Your task to perform on an android device: Check the weather Image 0: 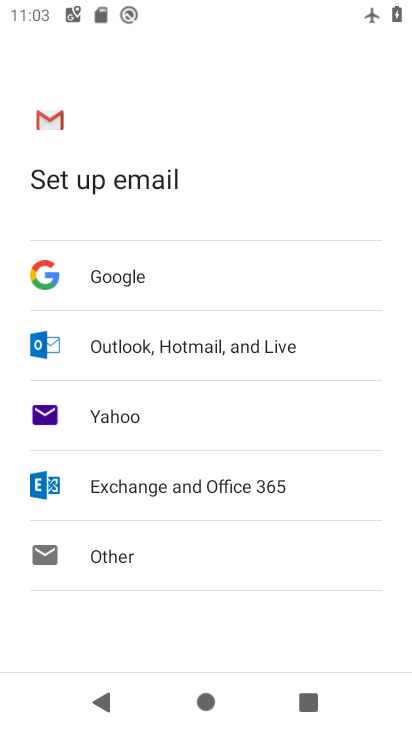
Step 0: press home button
Your task to perform on an android device: Check the weather Image 1: 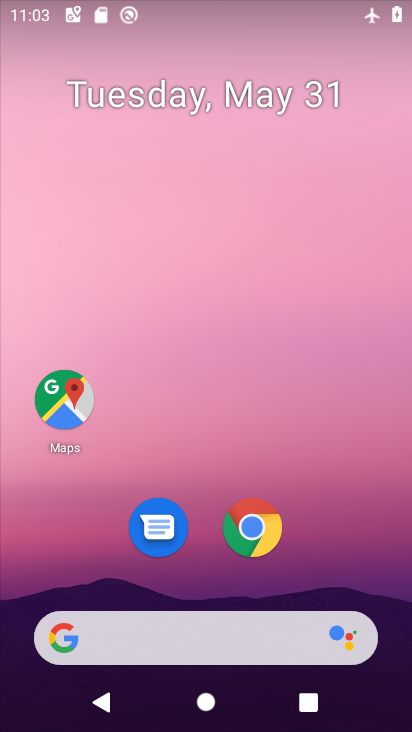
Step 1: click (112, 644)
Your task to perform on an android device: Check the weather Image 2: 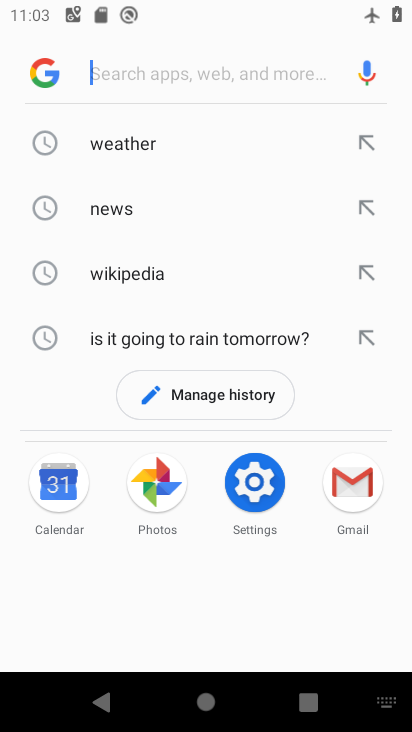
Step 2: click (119, 146)
Your task to perform on an android device: Check the weather Image 3: 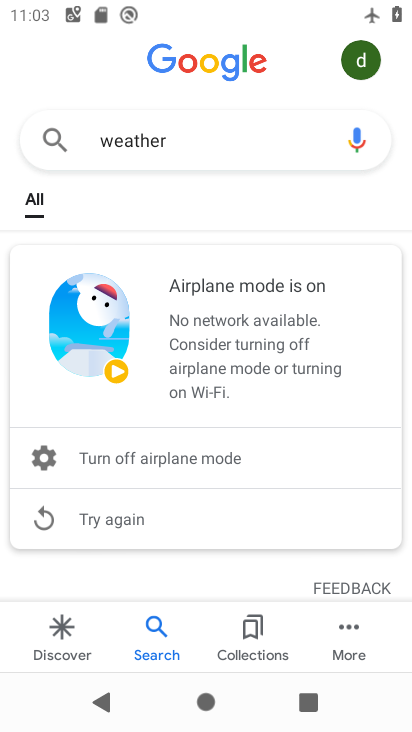
Step 3: task complete